Your task to perform on an android device: Do I have any events today? Image 0: 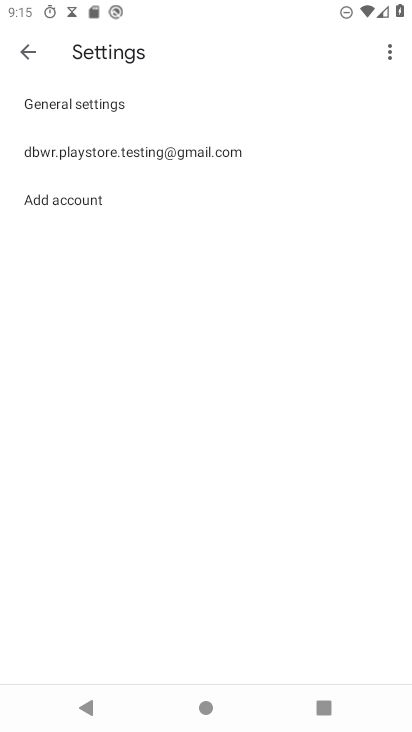
Step 0: press home button
Your task to perform on an android device: Do I have any events today? Image 1: 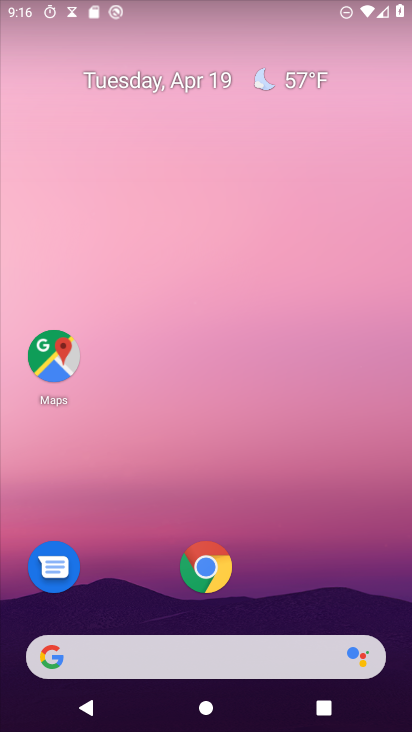
Step 1: drag from (270, 555) to (351, 41)
Your task to perform on an android device: Do I have any events today? Image 2: 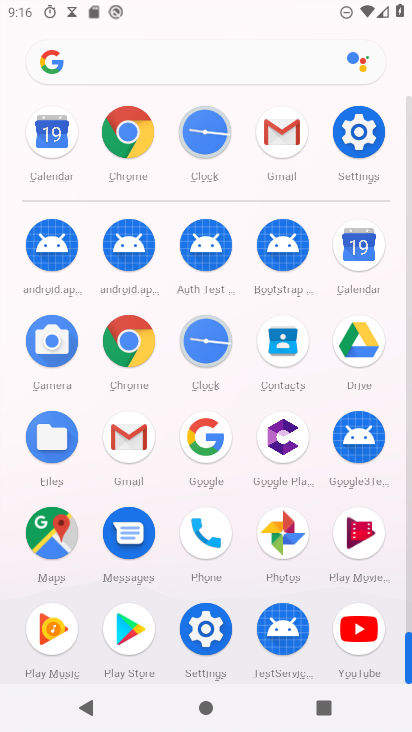
Step 2: click (365, 262)
Your task to perform on an android device: Do I have any events today? Image 3: 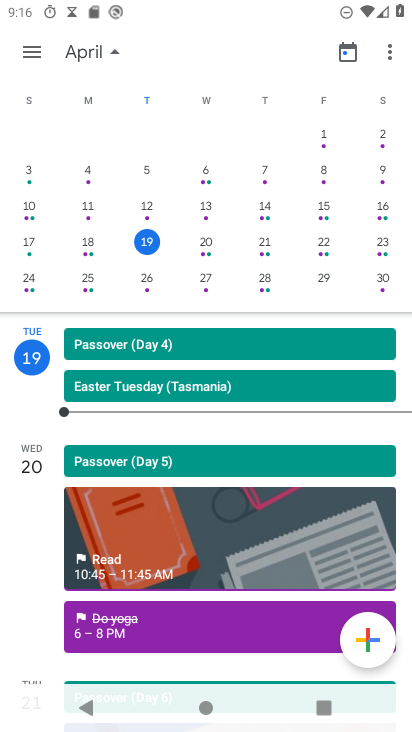
Step 3: task complete